Your task to perform on an android device: Open display settings Image 0: 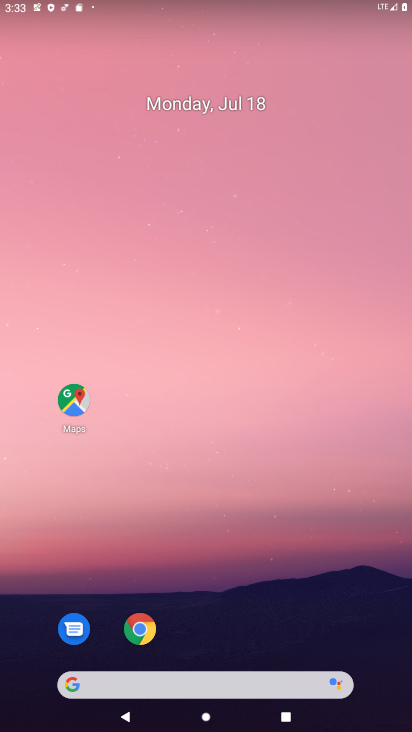
Step 0: drag from (231, 643) to (333, 1)
Your task to perform on an android device: Open display settings Image 1: 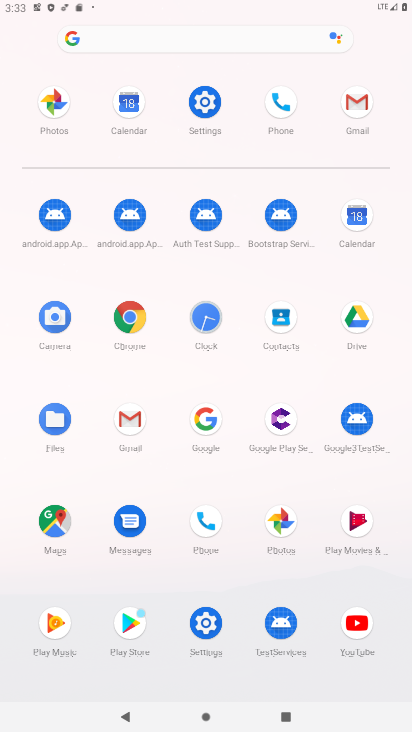
Step 1: click (203, 639)
Your task to perform on an android device: Open display settings Image 2: 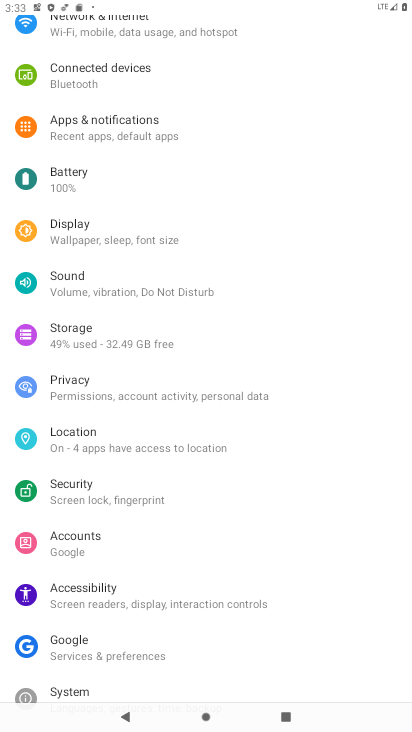
Step 2: click (114, 238)
Your task to perform on an android device: Open display settings Image 3: 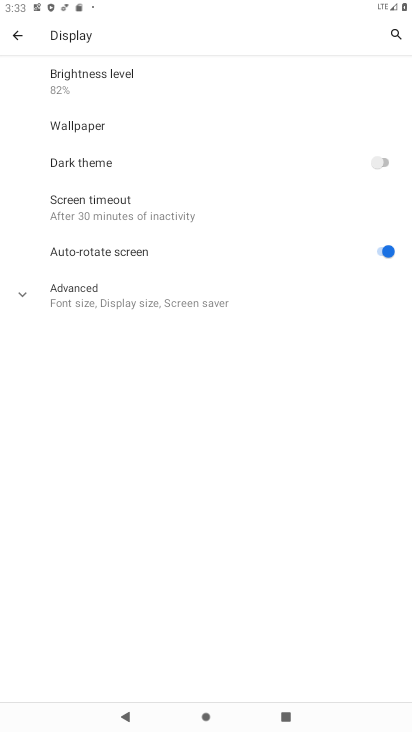
Step 3: task complete